Your task to perform on an android device: turn pop-ups off in chrome Image 0: 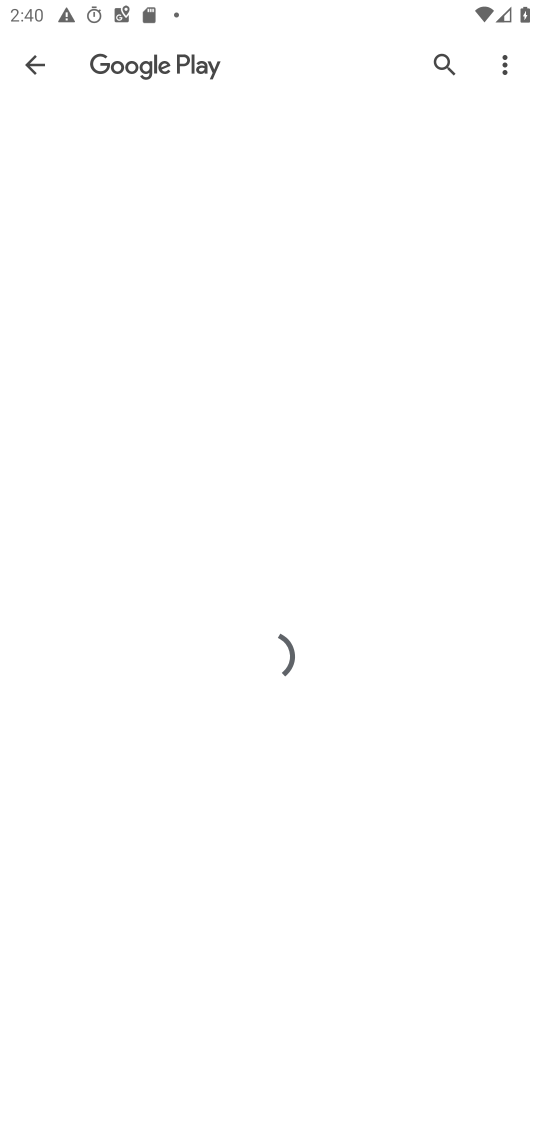
Step 0: press home button
Your task to perform on an android device: turn pop-ups off in chrome Image 1: 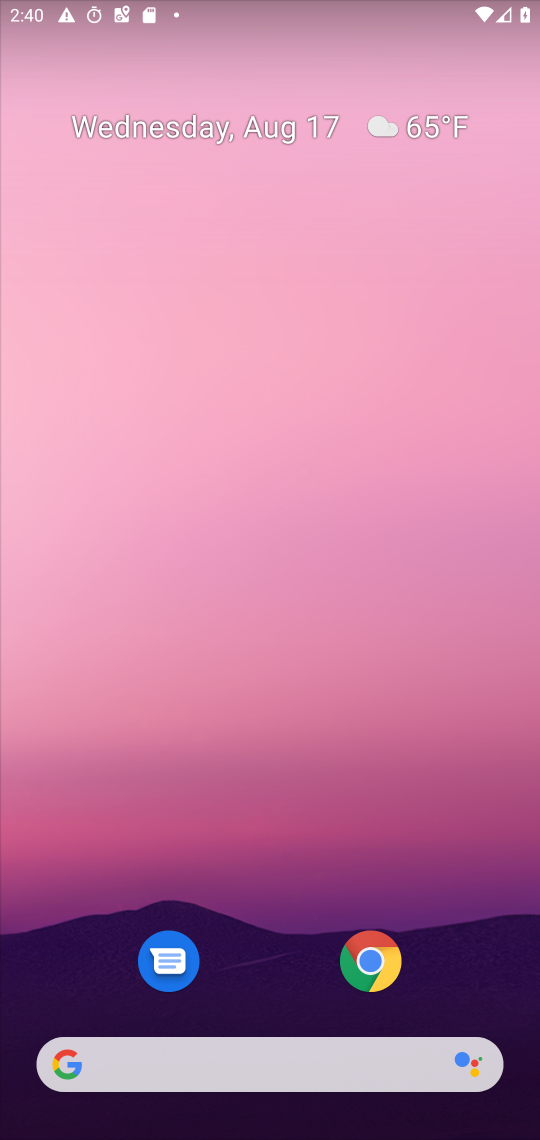
Step 1: drag from (283, 1007) to (193, 14)
Your task to perform on an android device: turn pop-ups off in chrome Image 2: 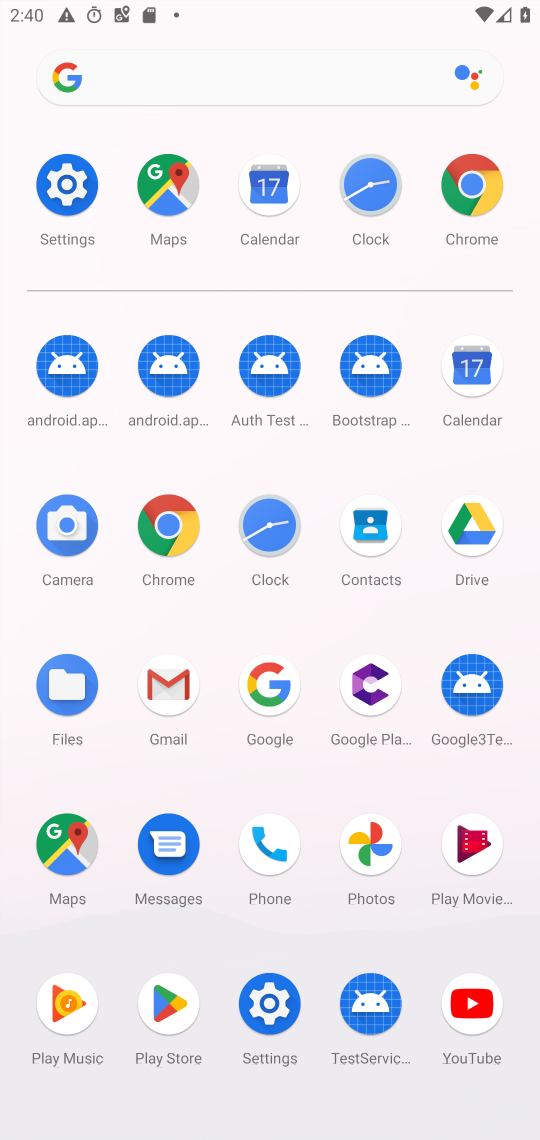
Step 2: click (173, 513)
Your task to perform on an android device: turn pop-ups off in chrome Image 3: 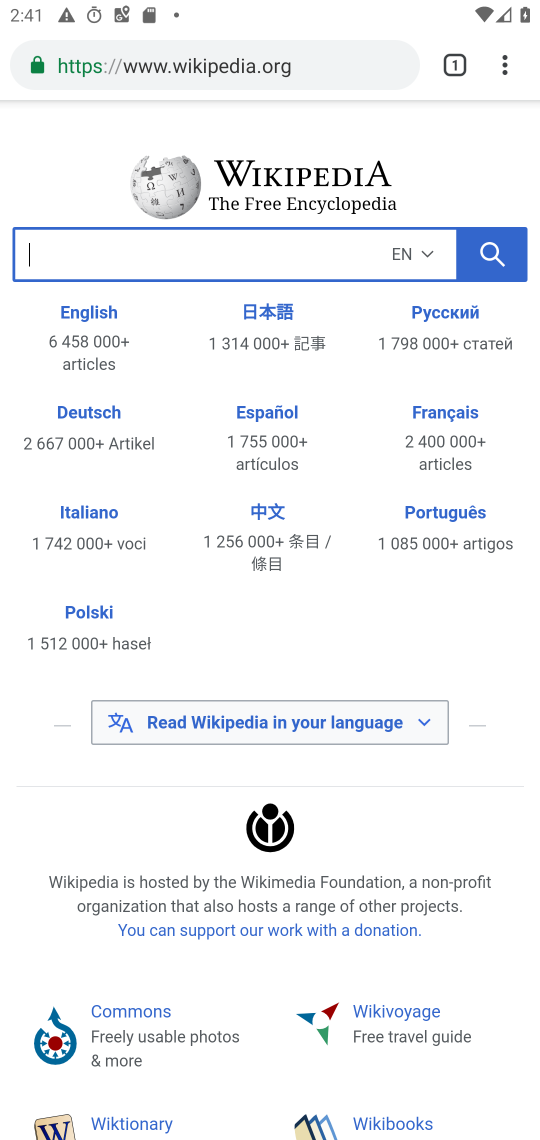
Step 3: click (507, 61)
Your task to perform on an android device: turn pop-ups off in chrome Image 4: 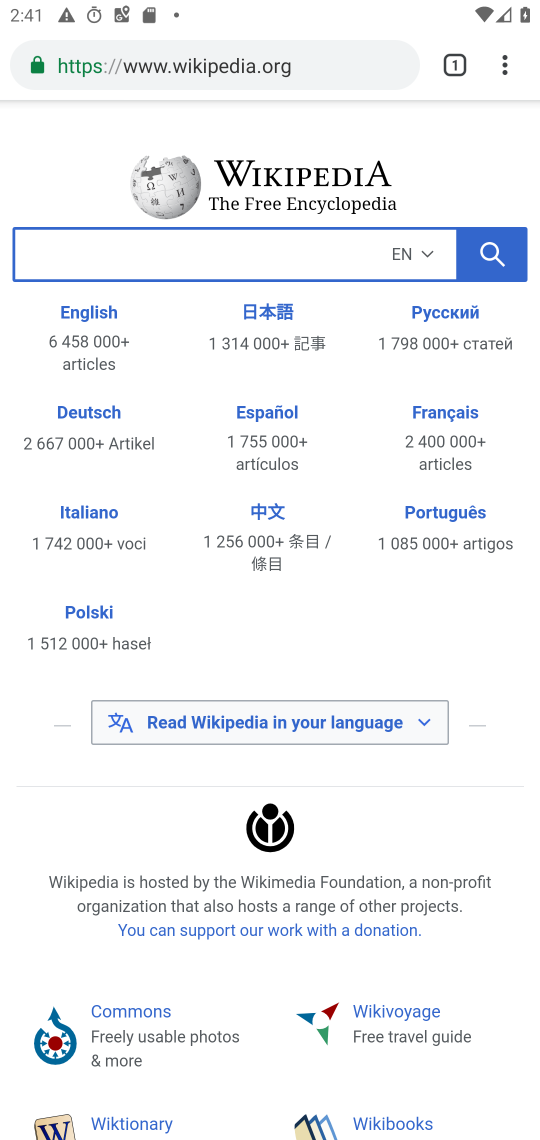
Step 4: click (499, 66)
Your task to perform on an android device: turn pop-ups off in chrome Image 5: 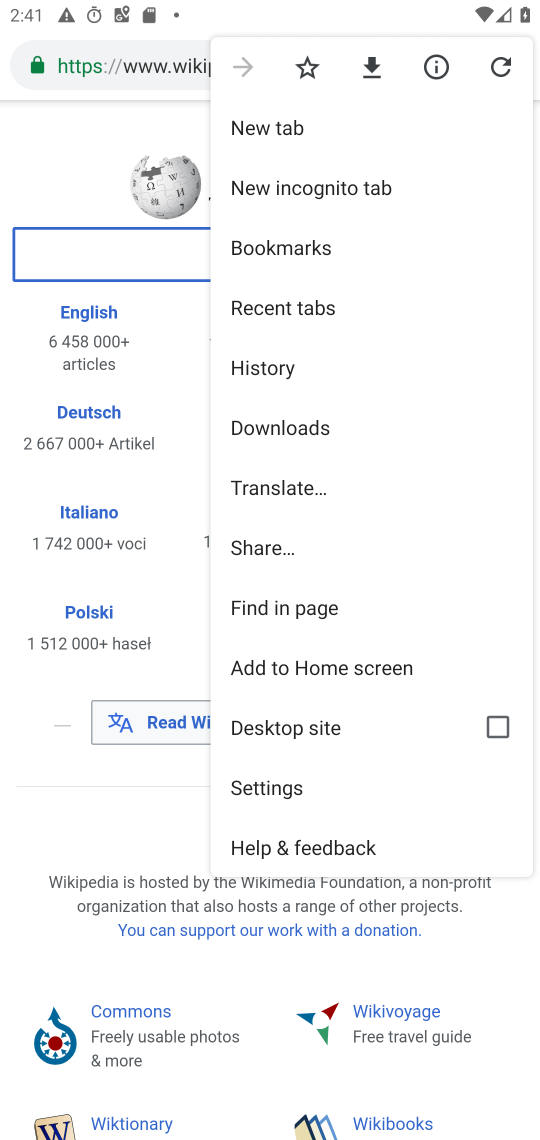
Step 5: click (310, 785)
Your task to perform on an android device: turn pop-ups off in chrome Image 6: 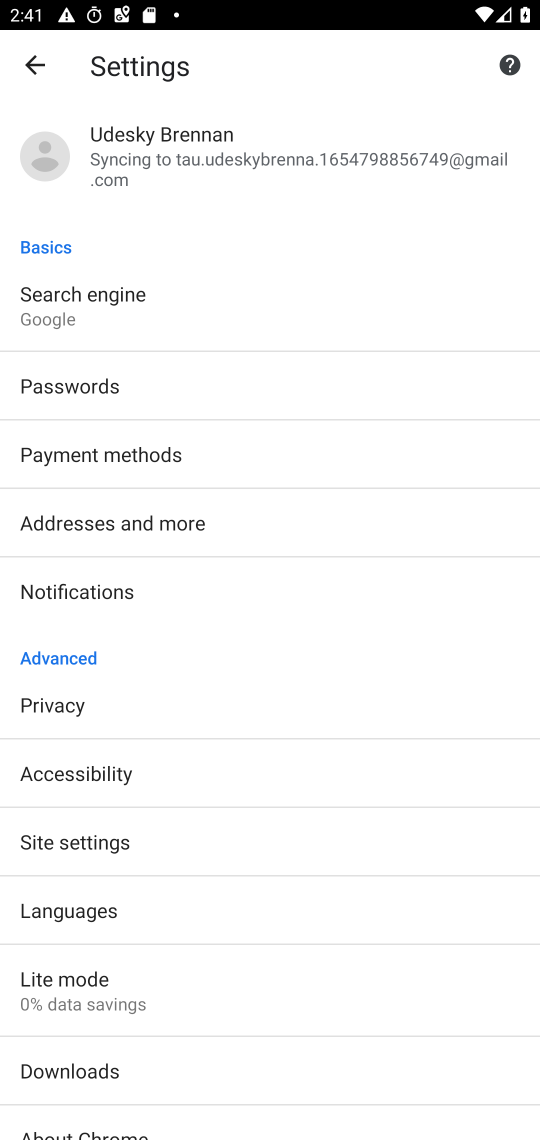
Step 6: click (100, 835)
Your task to perform on an android device: turn pop-ups off in chrome Image 7: 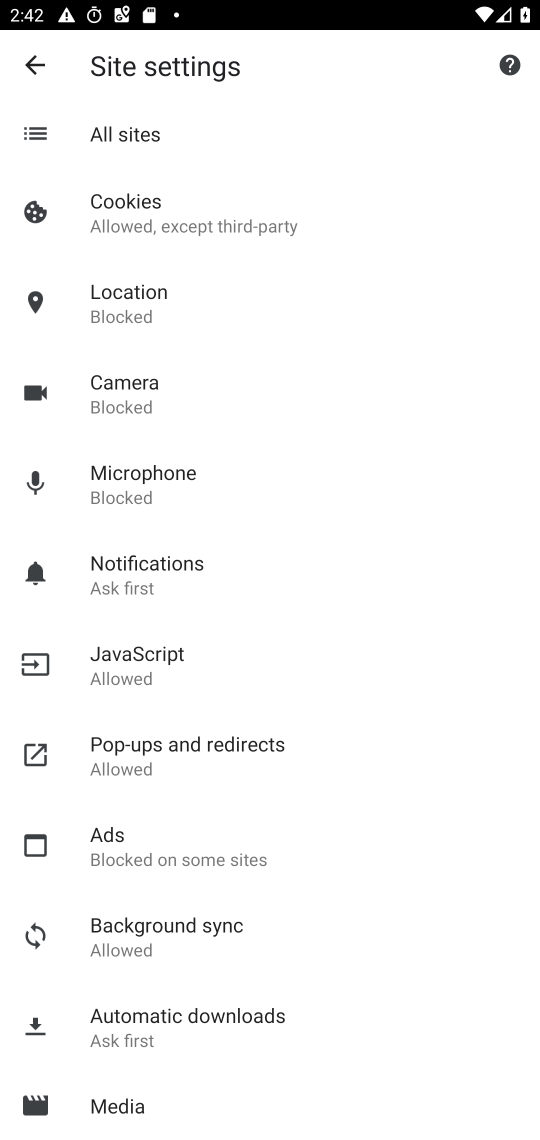
Step 7: click (214, 751)
Your task to perform on an android device: turn pop-ups off in chrome Image 8: 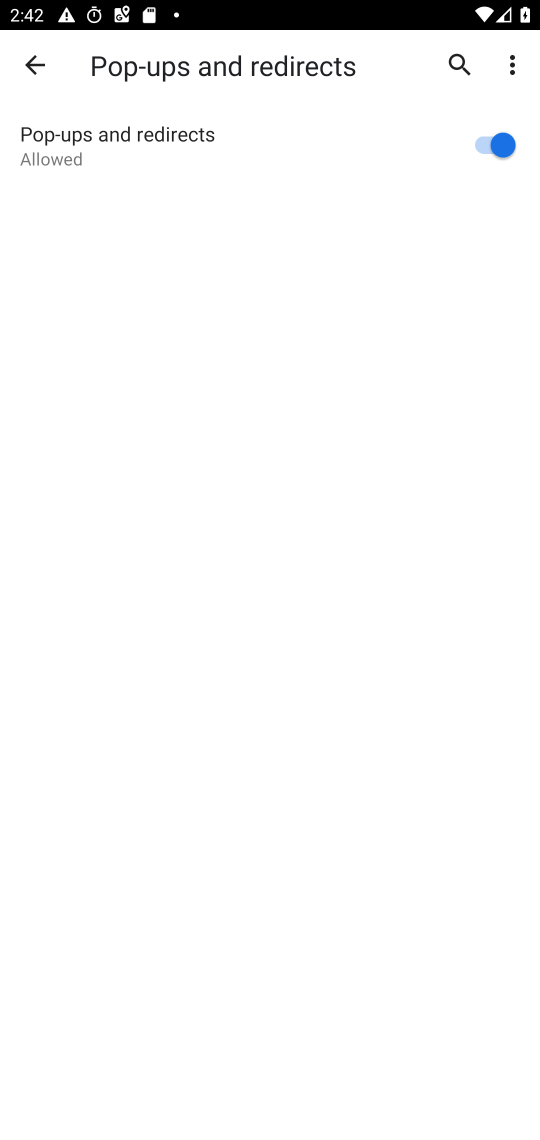
Step 8: click (474, 138)
Your task to perform on an android device: turn pop-ups off in chrome Image 9: 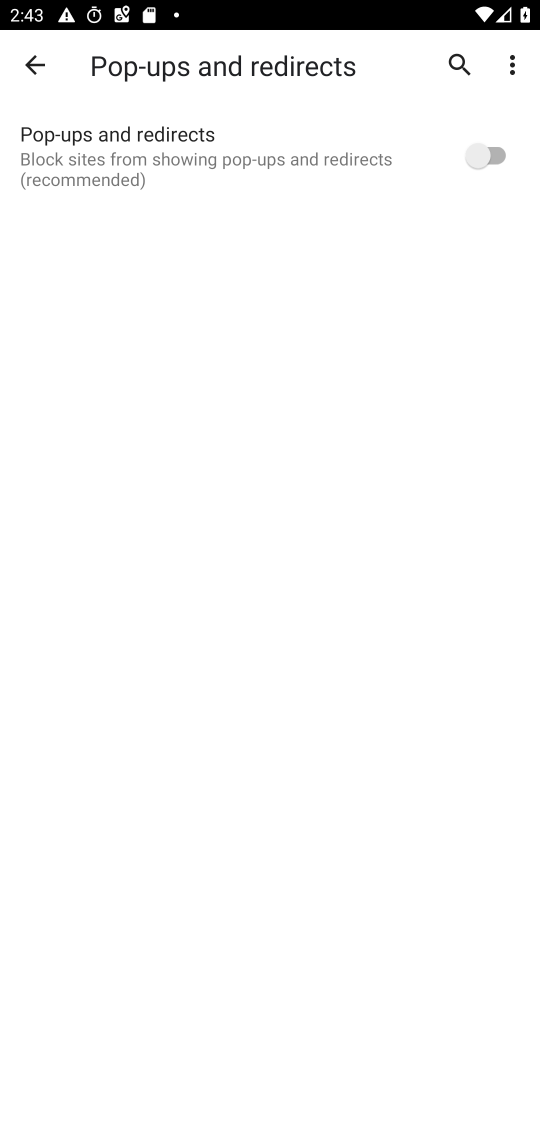
Step 9: task complete